Your task to perform on an android device: Open CNN.com Image 0: 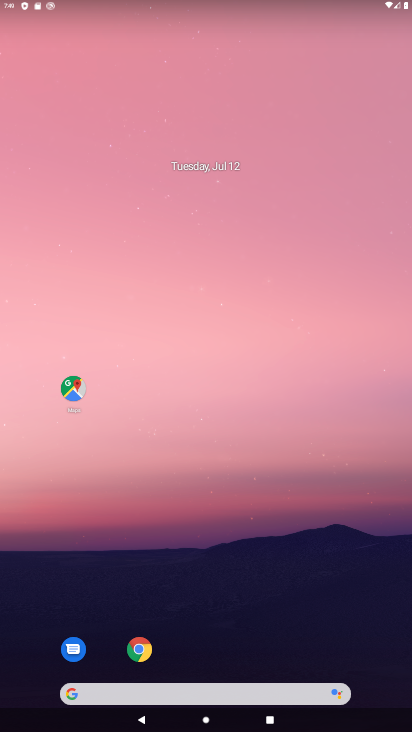
Step 0: drag from (358, 621) to (302, 154)
Your task to perform on an android device: Open CNN.com Image 1: 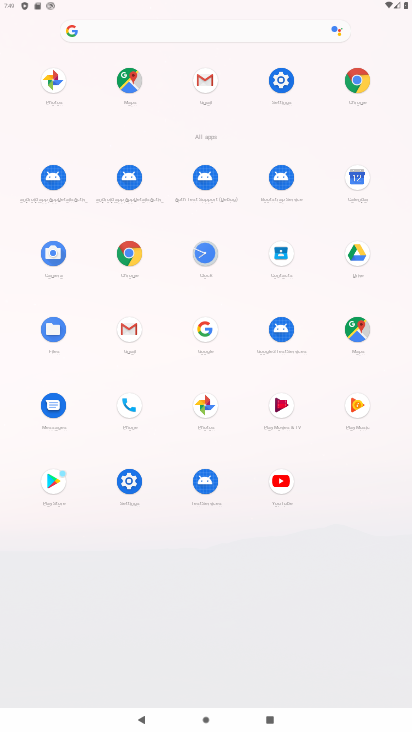
Step 1: click (132, 259)
Your task to perform on an android device: Open CNN.com Image 2: 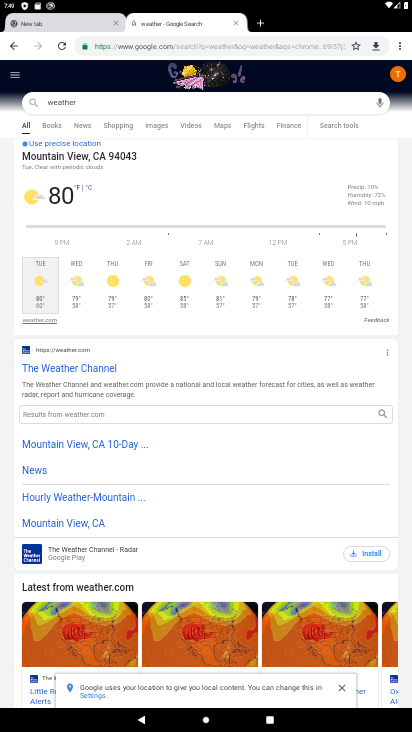
Step 2: click (174, 97)
Your task to perform on an android device: Open CNN.com Image 3: 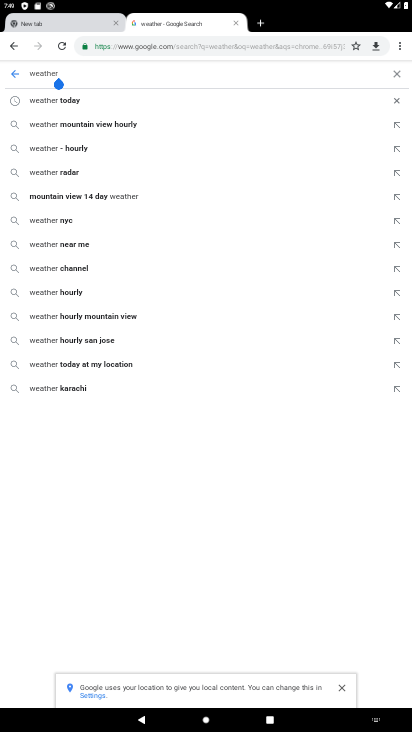
Step 3: click (399, 75)
Your task to perform on an android device: Open CNN.com Image 4: 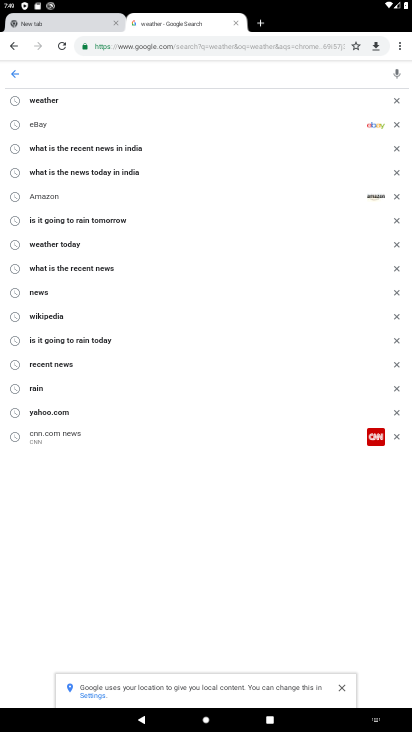
Step 4: type "cnn.com"
Your task to perform on an android device: Open CNN.com Image 5: 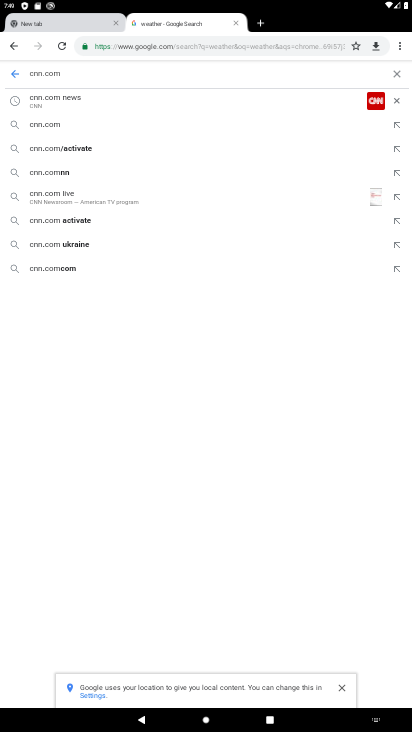
Step 5: click (42, 99)
Your task to perform on an android device: Open CNN.com Image 6: 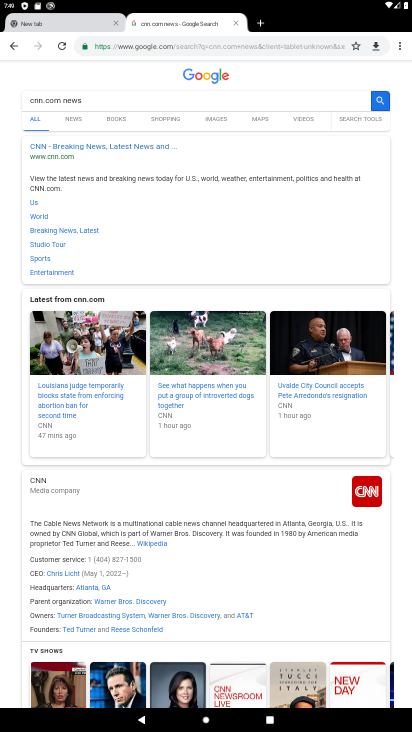
Step 6: click (92, 149)
Your task to perform on an android device: Open CNN.com Image 7: 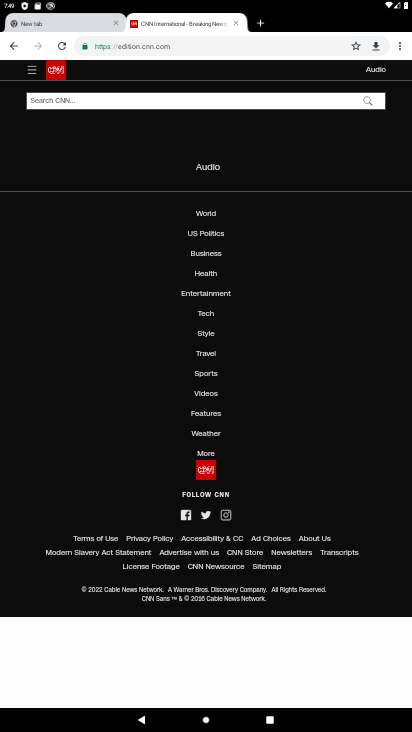
Step 7: task complete